Your task to perform on an android device: turn off priority inbox in the gmail app Image 0: 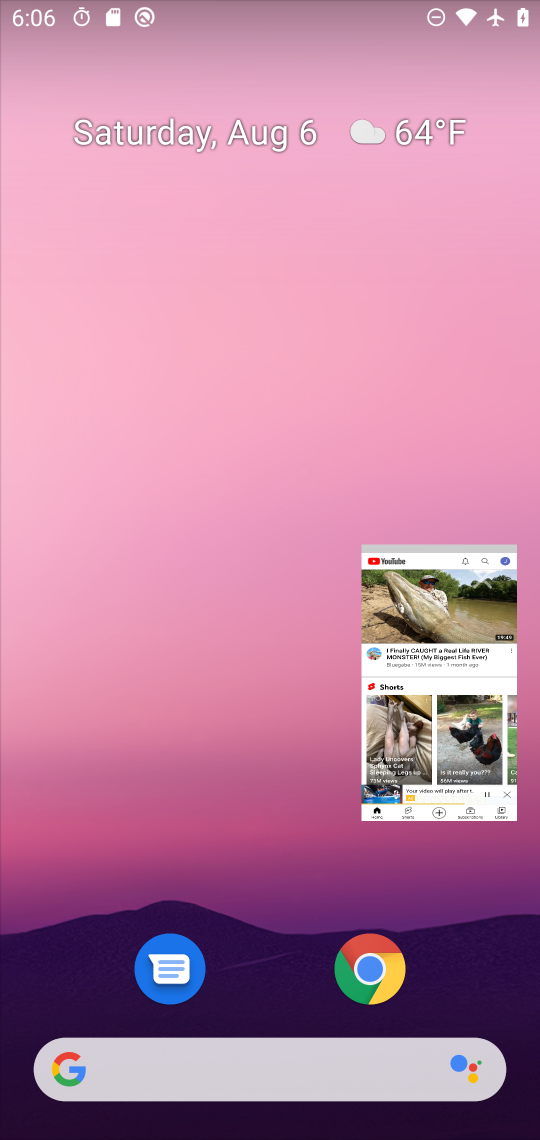
Step 0: press home button
Your task to perform on an android device: turn off priority inbox in the gmail app Image 1: 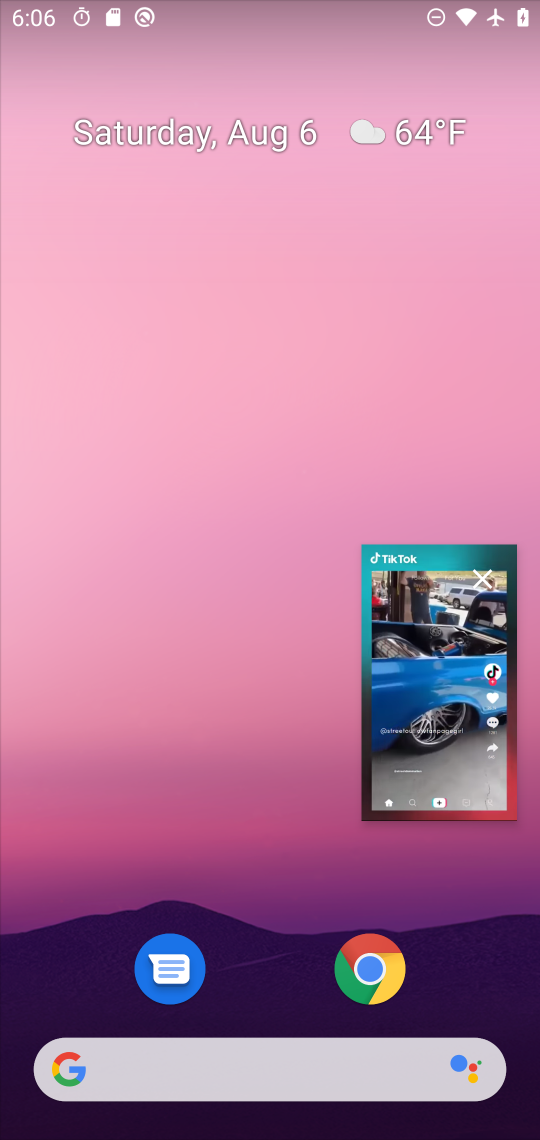
Step 1: click (480, 582)
Your task to perform on an android device: turn off priority inbox in the gmail app Image 2: 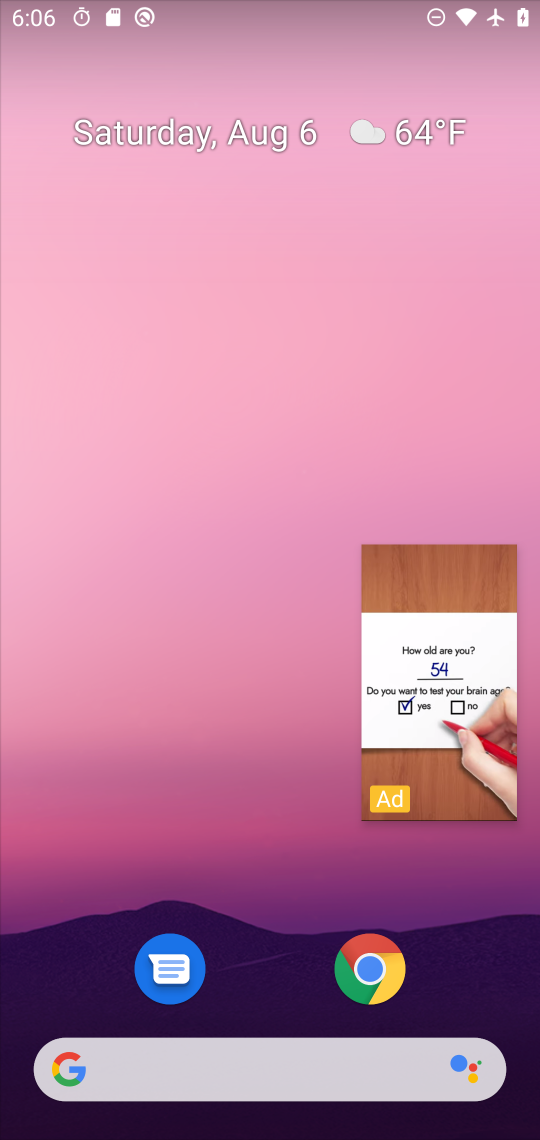
Step 2: click (457, 392)
Your task to perform on an android device: turn off priority inbox in the gmail app Image 3: 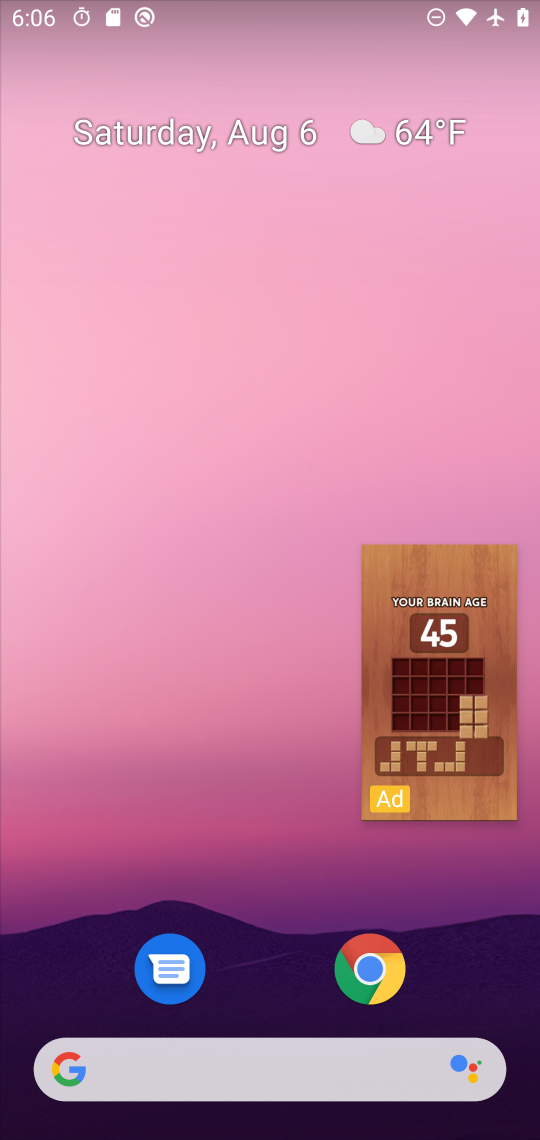
Step 3: click (488, 581)
Your task to perform on an android device: turn off priority inbox in the gmail app Image 4: 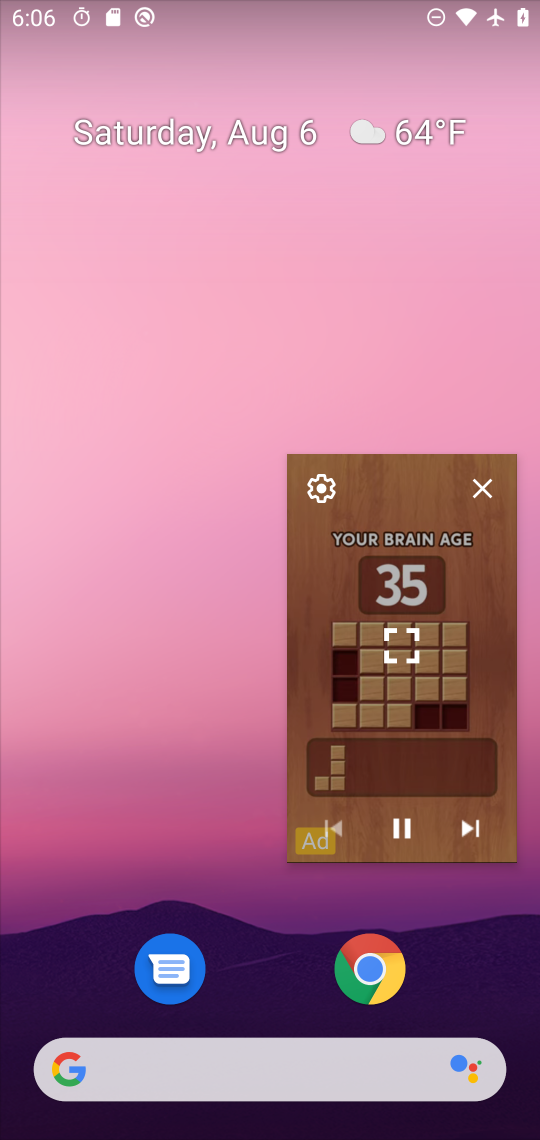
Step 4: drag from (281, 969) to (379, 72)
Your task to perform on an android device: turn off priority inbox in the gmail app Image 5: 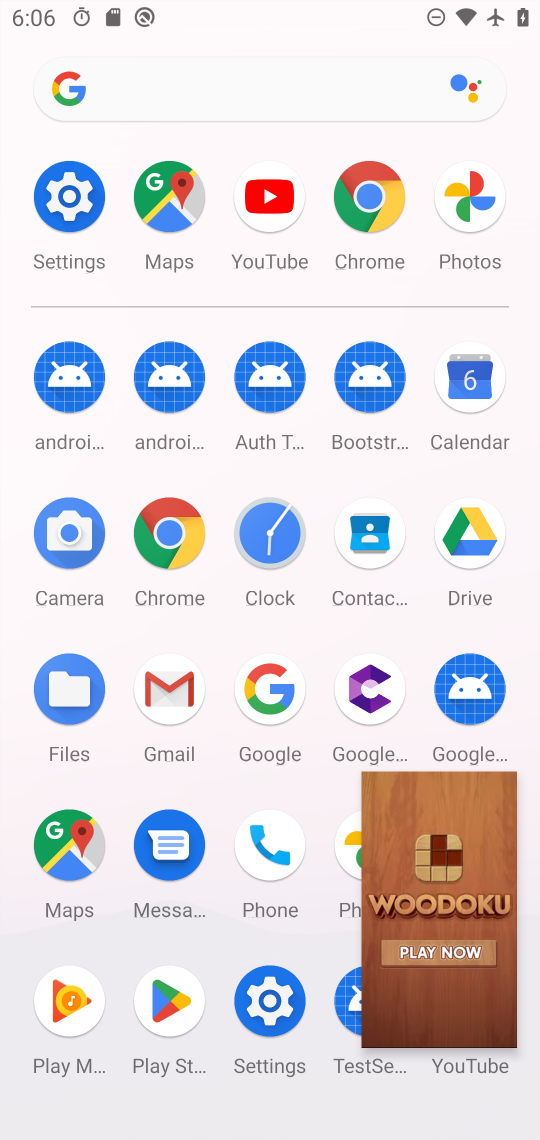
Step 5: click (471, 807)
Your task to perform on an android device: turn off priority inbox in the gmail app Image 6: 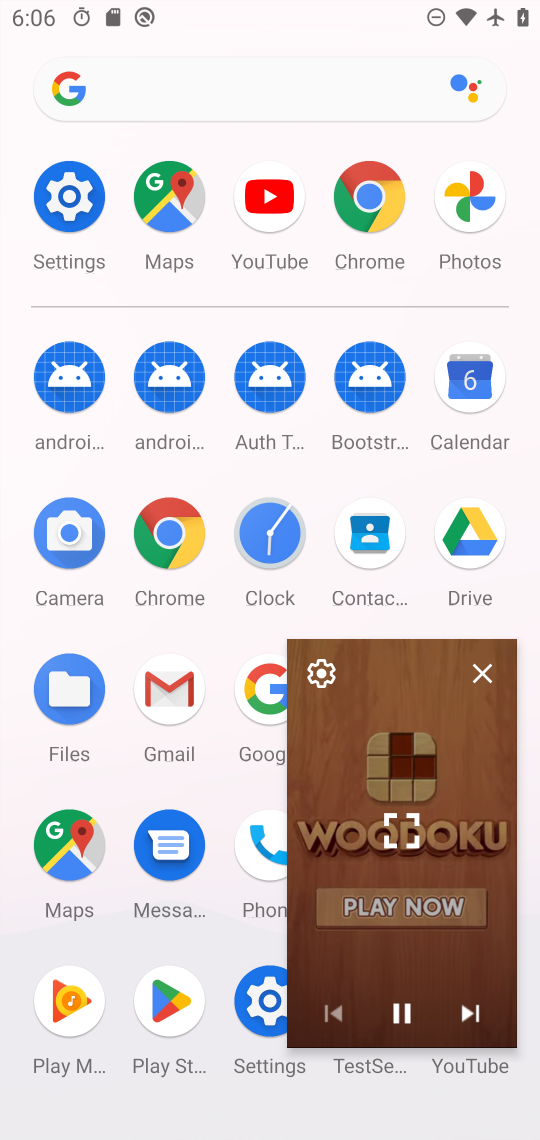
Step 6: click (491, 674)
Your task to perform on an android device: turn off priority inbox in the gmail app Image 7: 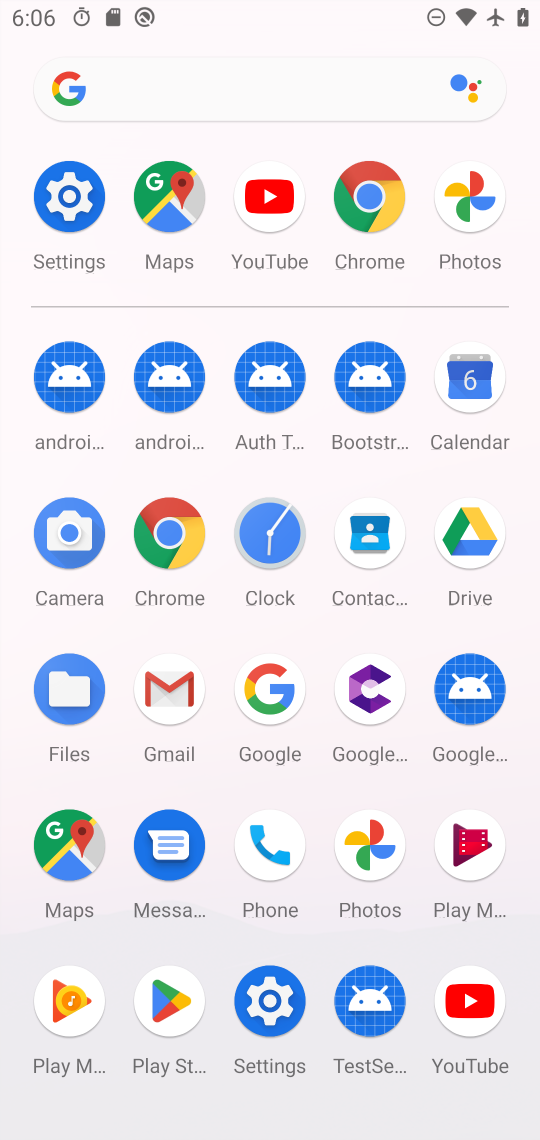
Step 7: click (169, 695)
Your task to perform on an android device: turn off priority inbox in the gmail app Image 8: 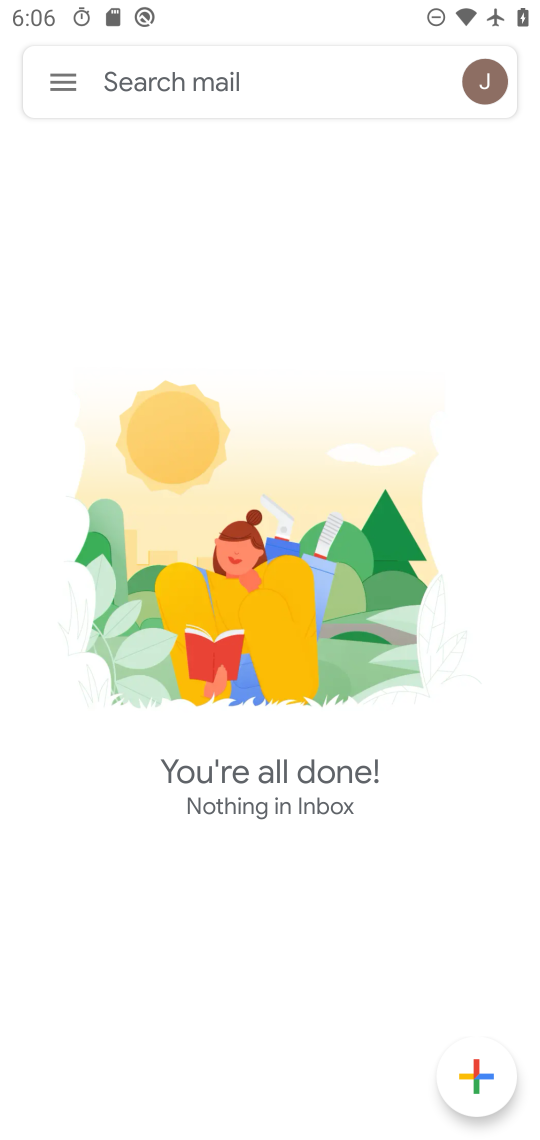
Step 8: click (71, 83)
Your task to perform on an android device: turn off priority inbox in the gmail app Image 9: 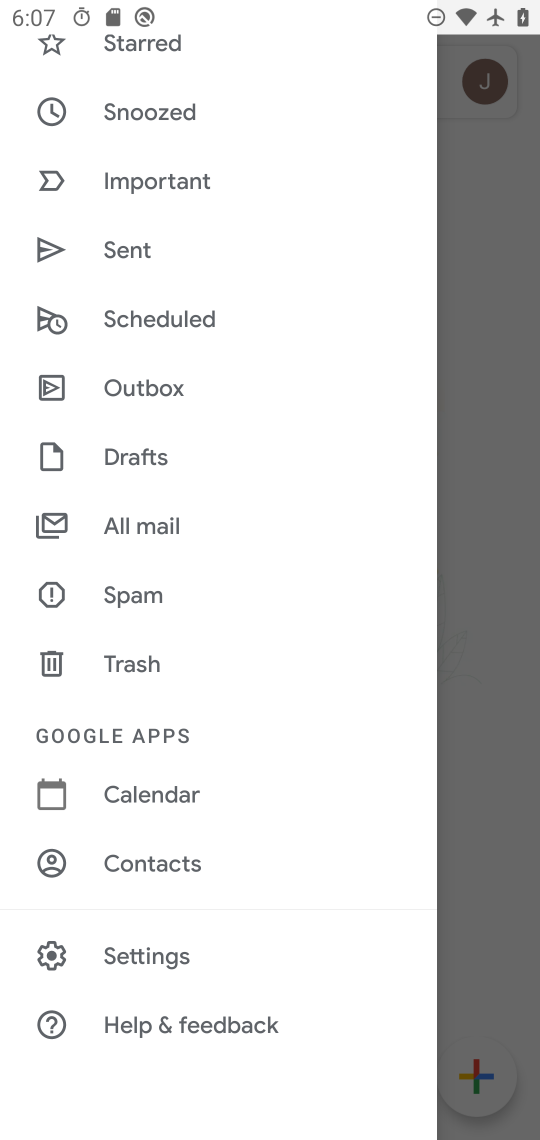
Step 9: click (143, 963)
Your task to perform on an android device: turn off priority inbox in the gmail app Image 10: 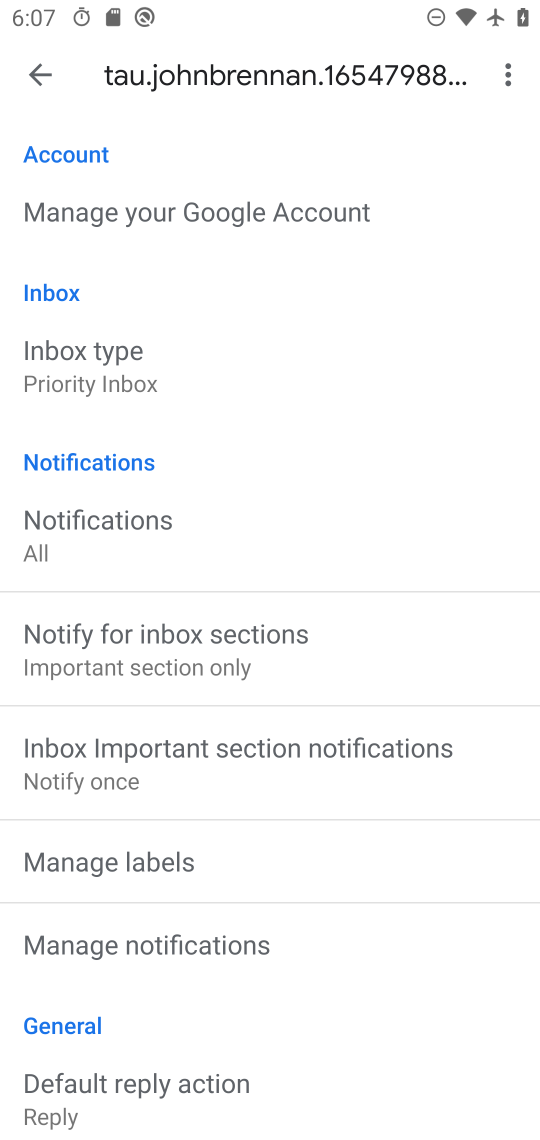
Step 10: click (105, 361)
Your task to perform on an android device: turn off priority inbox in the gmail app Image 11: 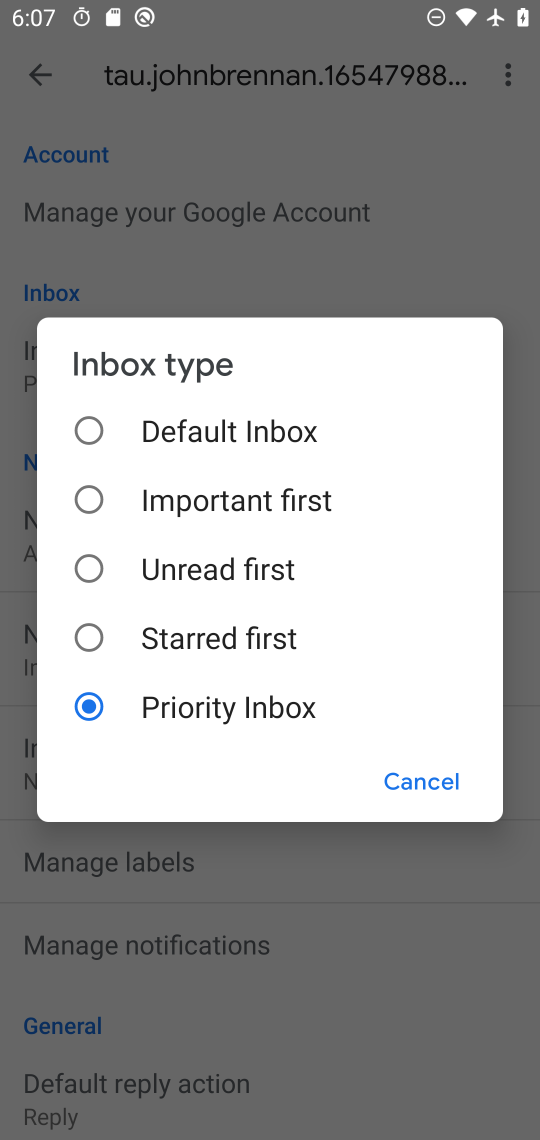
Step 11: click (97, 436)
Your task to perform on an android device: turn off priority inbox in the gmail app Image 12: 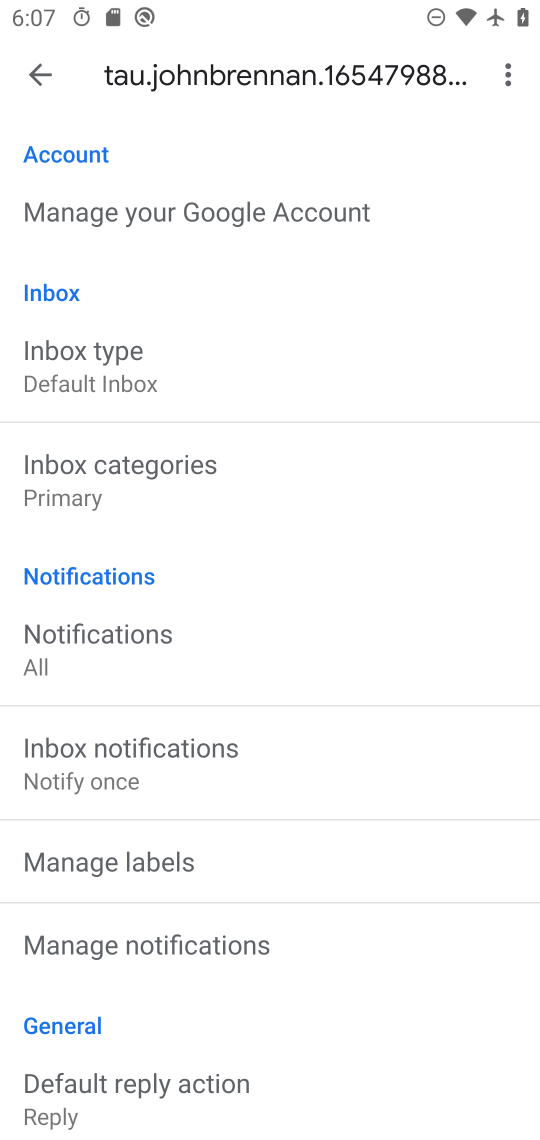
Step 12: task complete